Your task to perform on an android device: Go to settings Image 0: 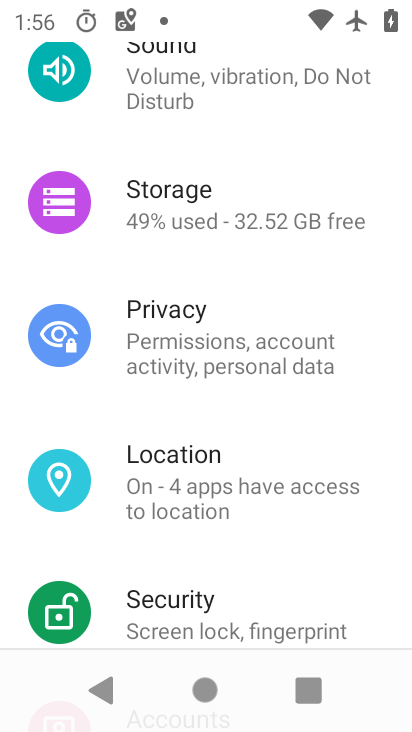
Step 0: press home button
Your task to perform on an android device: Go to settings Image 1: 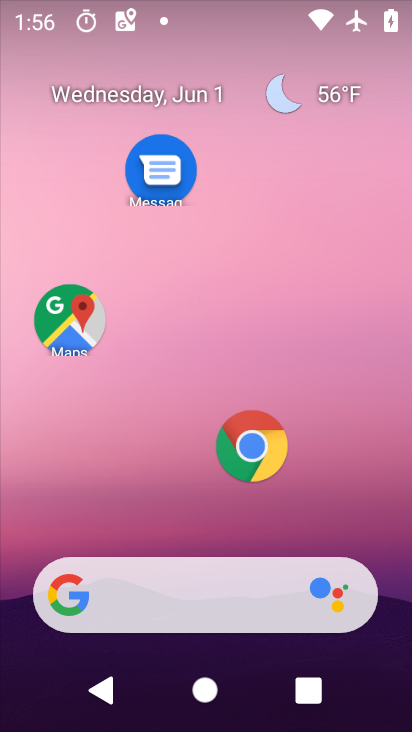
Step 1: drag from (3, 529) to (228, 227)
Your task to perform on an android device: Go to settings Image 2: 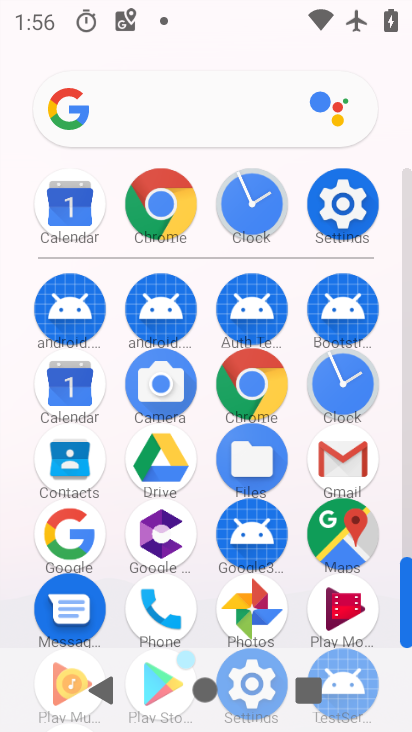
Step 2: click (339, 212)
Your task to perform on an android device: Go to settings Image 3: 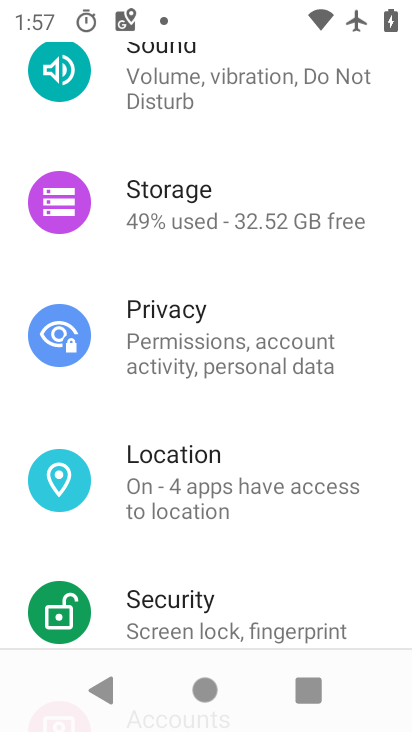
Step 3: task complete